Your task to perform on an android device: Open Google Image 0: 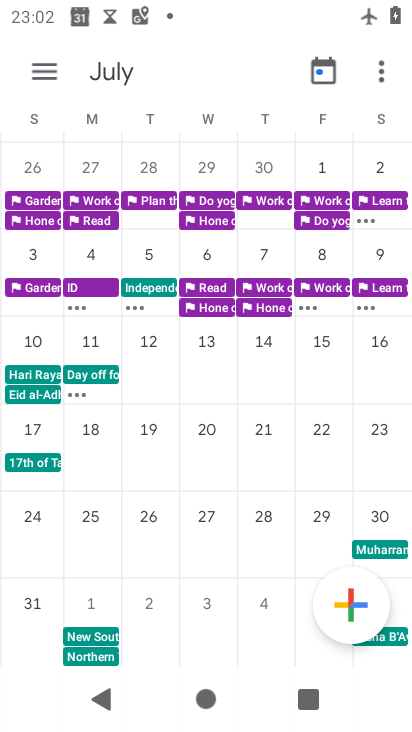
Step 0: press home button
Your task to perform on an android device: Open Google Image 1: 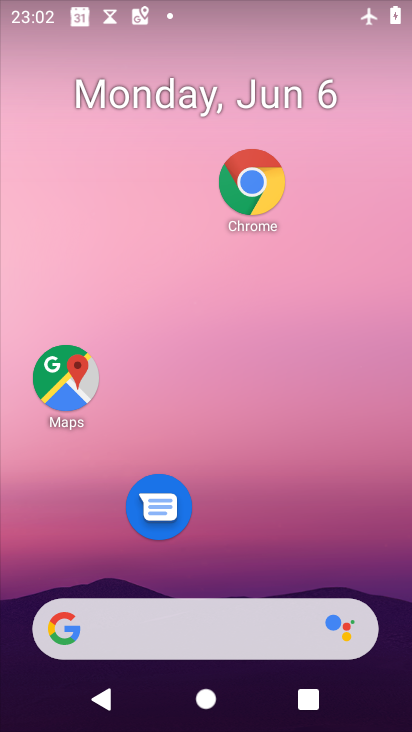
Step 1: drag from (232, 556) to (232, 226)
Your task to perform on an android device: Open Google Image 2: 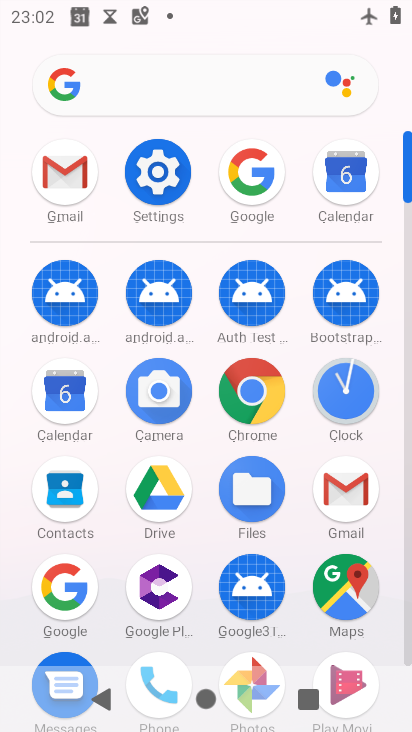
Step 2: click (65, 583)
Your task to perform on an android device: Open Google Image 3: 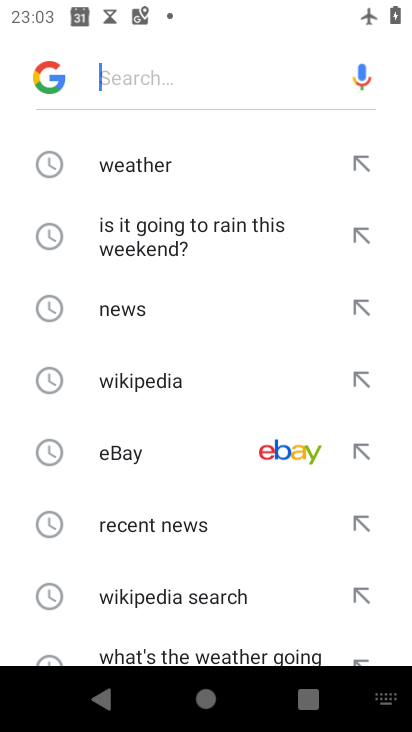
Step 3: task complete